Your task to perform on an android device: delete browsing data in the chrome app Image 0: 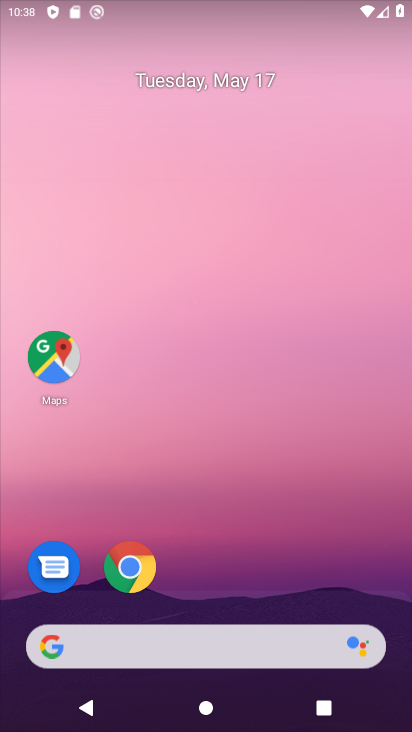
Step 0: drag from (240, 559) to (237, 194)
Your task to perform on an android device: delete browsing data in the chrome app Image 1: 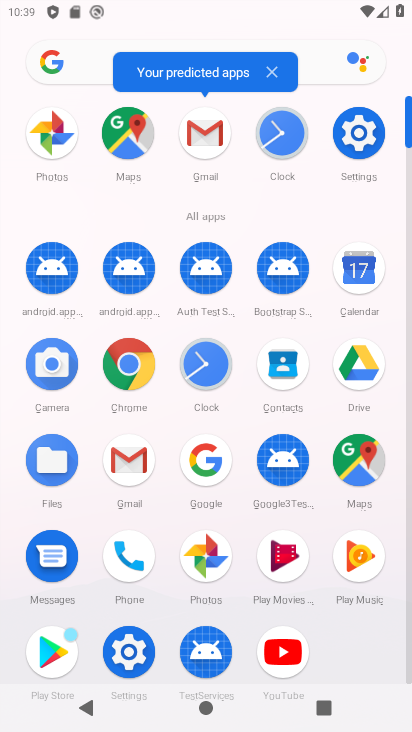
Step 1: click (136, 359)
Your task to perform on an android device: delete browsing data in the chrome app Image 2: 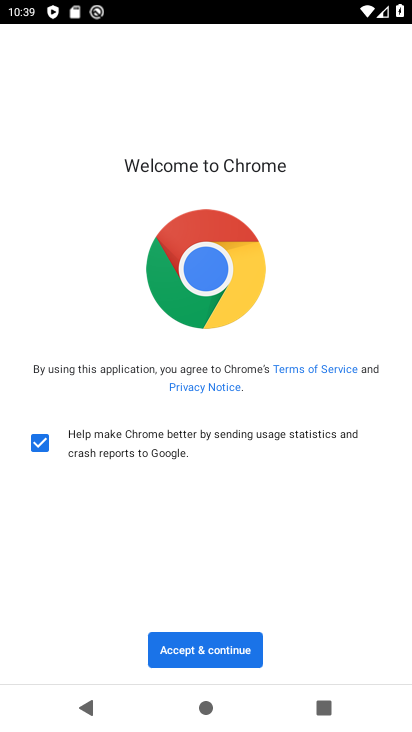
Step 2: click (212, 654)
Your task to perform on an android device: delete browsing data in the chrome app Image 3: 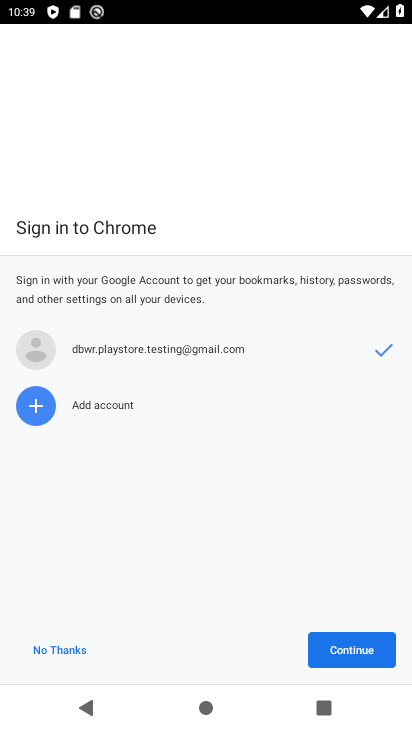
Step 3: click (341, 642)
Your task to perform on an android device: delete browsing data in the chrome app Image 4: 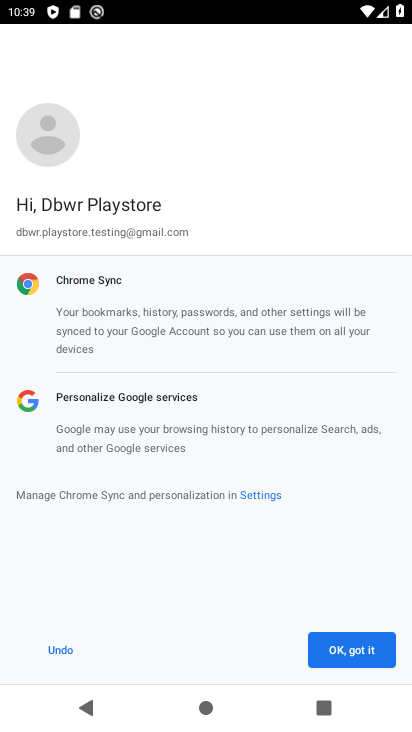
Step 4: click (334, 649)
Your task to perform on an android device: delete browsing data in the chrome app Image 5: 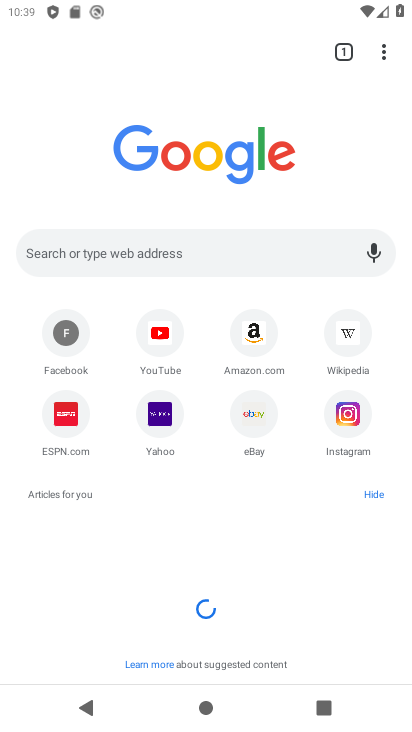
Step 5: click (385, 39)
Your task to perform on an android device: delete browsing data in the chrome app Image 6: 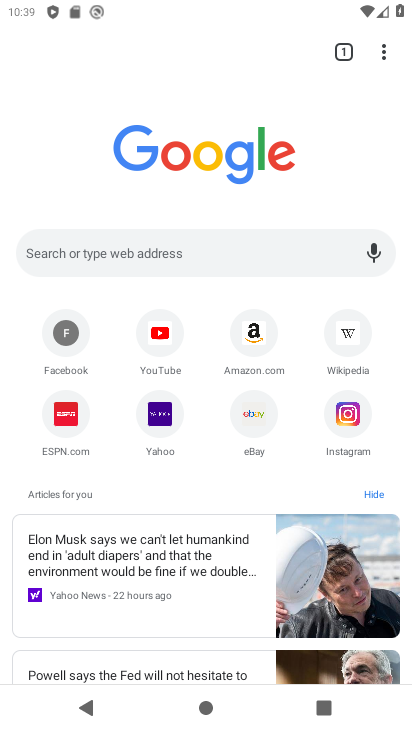
Step 6: click (375, 52)
Your task to perform on an android device: delete browsing data in the chrome app Image 7: 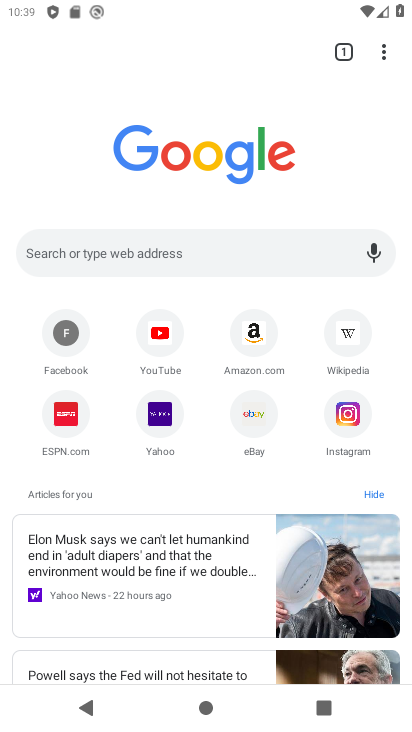
Step 7: click (375, 52)
Your task to perform on an android device: delete browsing data in the chrome app Image 8: 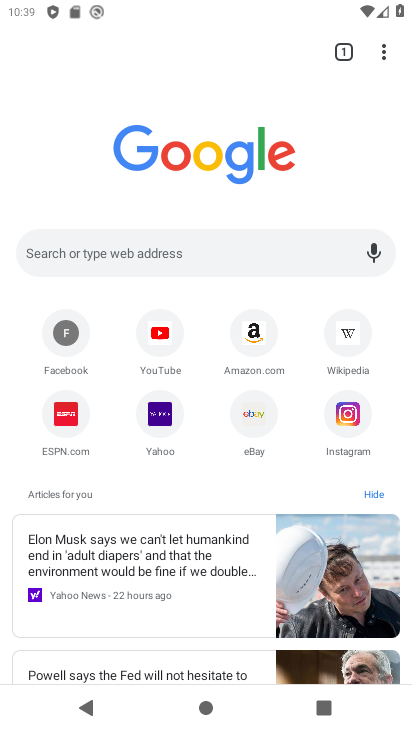
Step 8: click (381, 57)
Your task to perform on an android device: delete browsing data in the chrome app Image 9: 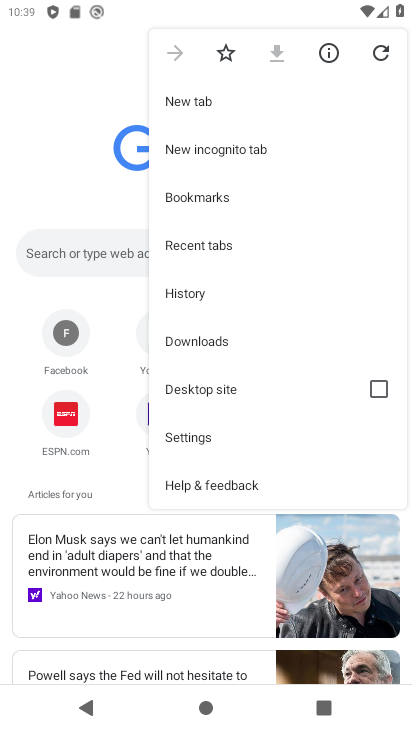
Step 9: click (216, 437)
Your task to perform on an android device: delete browsing data in the chrome app Image 10: 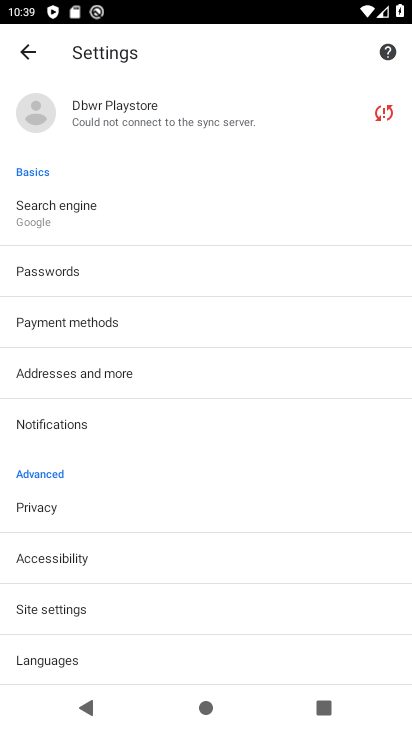
Step 10: drag from (168, 631) to (171, 275)
Your task to perform on an android device: delete browsing data in the chrome app Image 11: 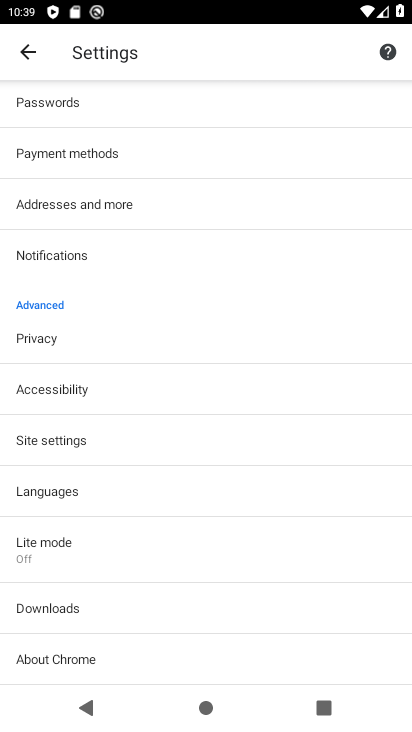
Step 11: drag from (125, 294) to (116, 646)
Your task to perform on an android device: delete browsing data in the chrome app Image 12: 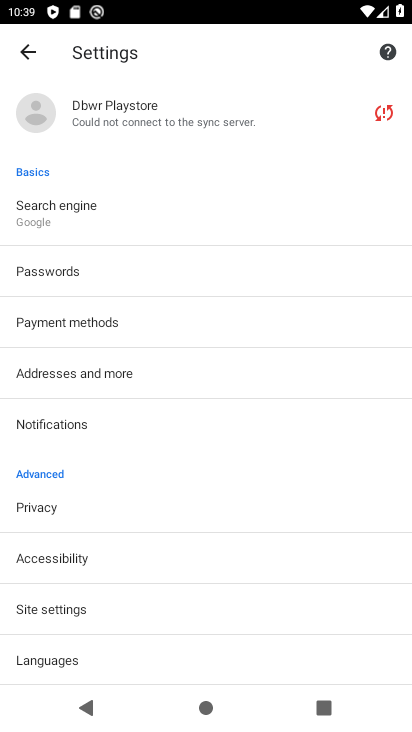
Step 12: drag from (112, 541) to (187, 125)
Your task to perform on an android device: delete browsing data in the chrome app Image 13: 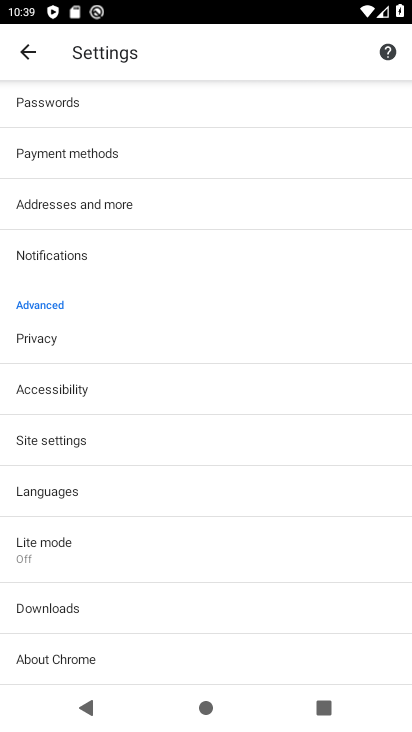
Step 13: drag from (125, 639) to (195, 233)
Your task to perform on an android device: delete browsing data in the chrome app Image 14: 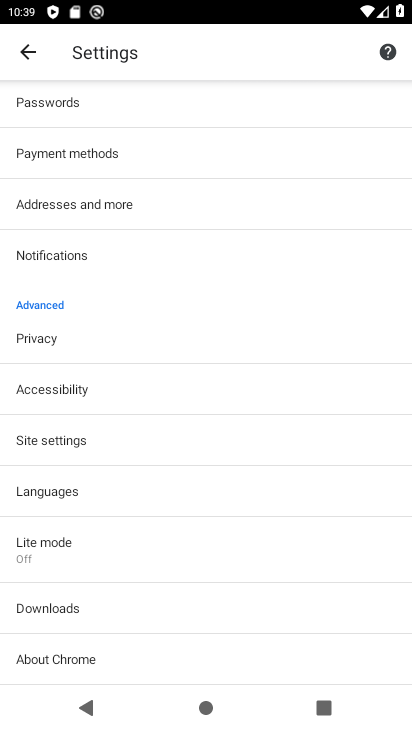
Step 14: click (32, 49)
Your task to perform on an android device: delete browsing data in the chrome app Image 15: 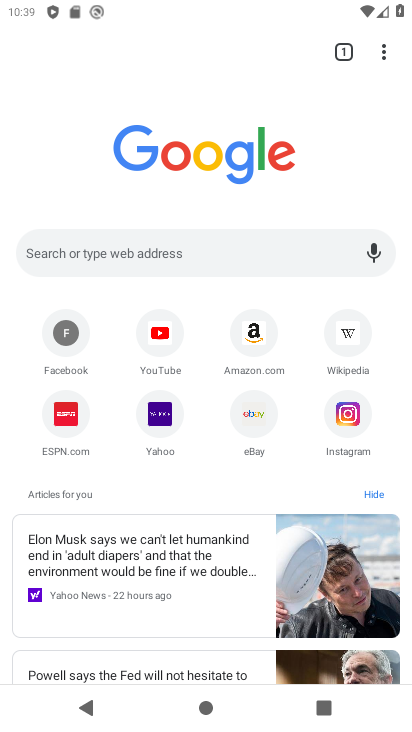
Step 15: click (386, 58)
Your task to perform on an android device: delete browsing data in the chrome app Image 16: 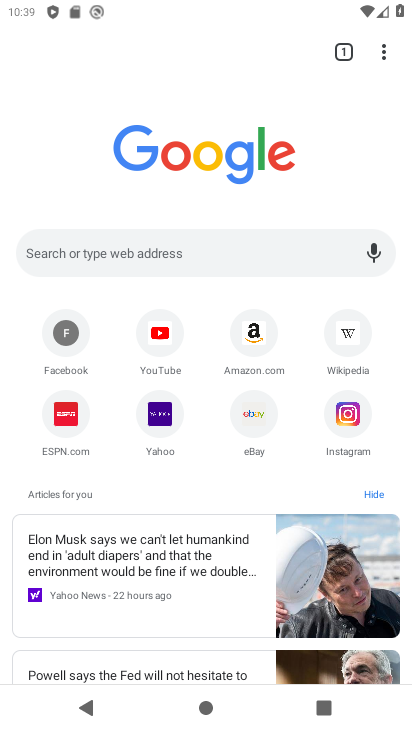
Step 16: click (376, 45)
Your task to perform on an android device: delete browsing data in the chrome app Image 17: 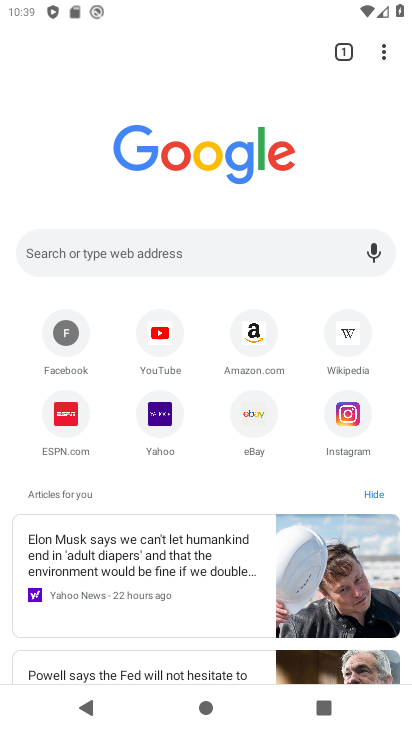
Step 17: click (376, 45)
Your task to perform on an android device: delete browsing data in the chrome app Image 18: 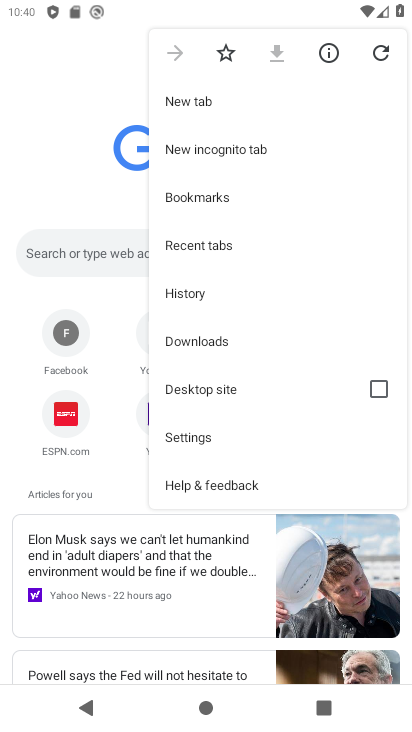
Step 18: click (228, 435)
Your task to perform on an android device: delete browsing data in the chrome app Image 19: 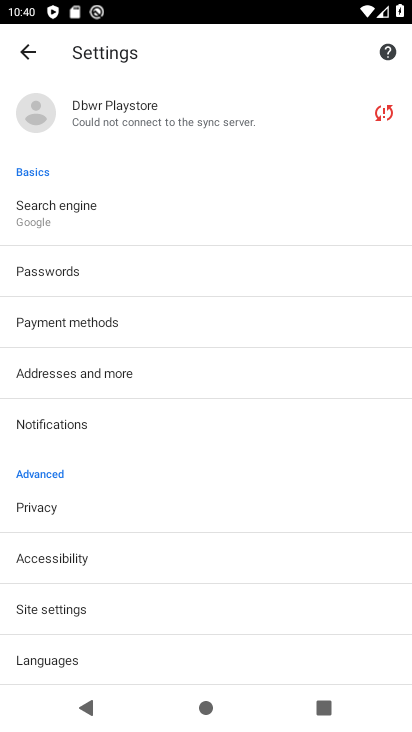
Step 19: click (74, 506)
Your task to perform on an android device: delete browsing data in the chrome app Image 20: 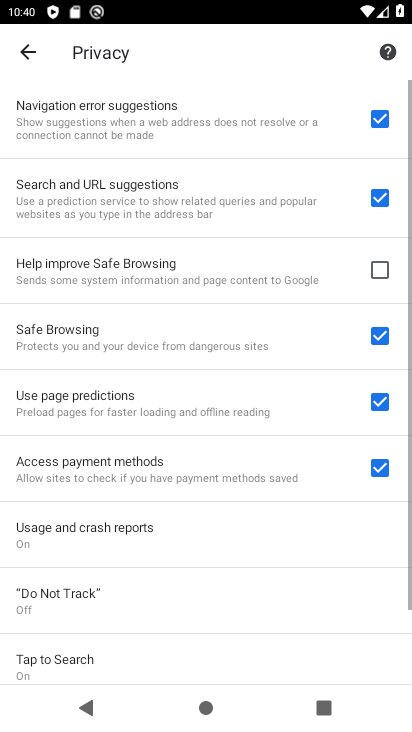
Step 20: drag from (190, 661) to (265, 74)
Your task to perform on an android device: delete browsing data in the chrome app Image 21: 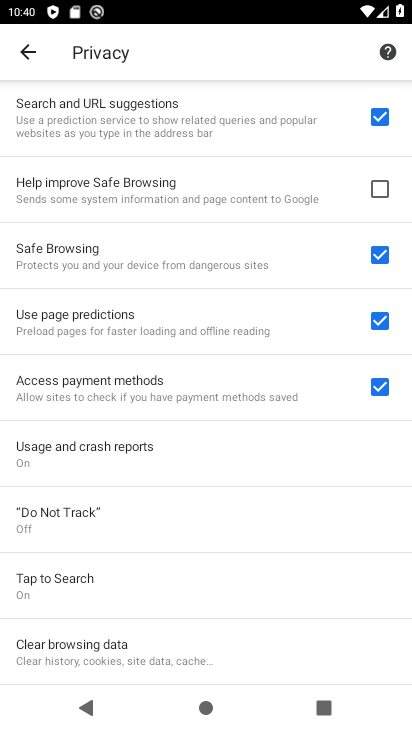
Step 21: click (200, 668)
Your task to perform on an android device: delete browsing data in the chrome app Image 22: 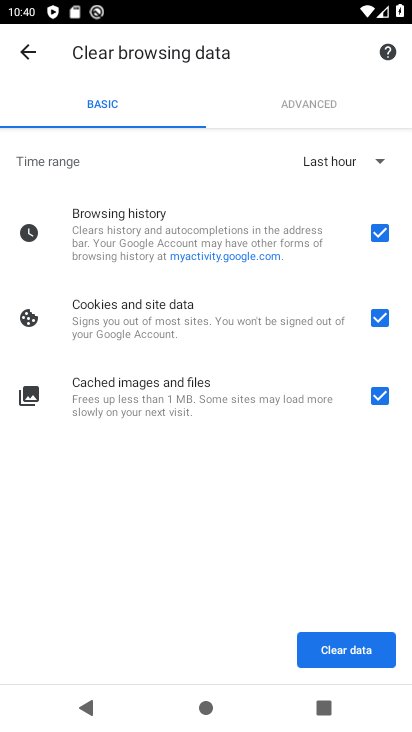
Step 22: click (320, 645)
Your task to perform on an android device: delete browsing data in the chrome app Image 23: 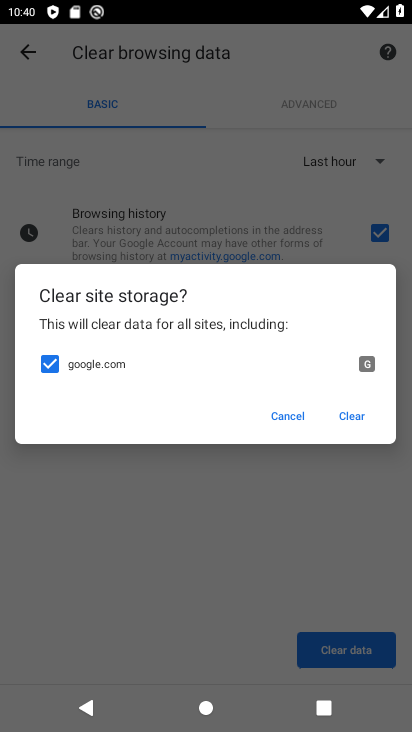
Step 23: click (353, 412)
Your task to perform on an android device: delete browsing data in the chrome app Image 24: 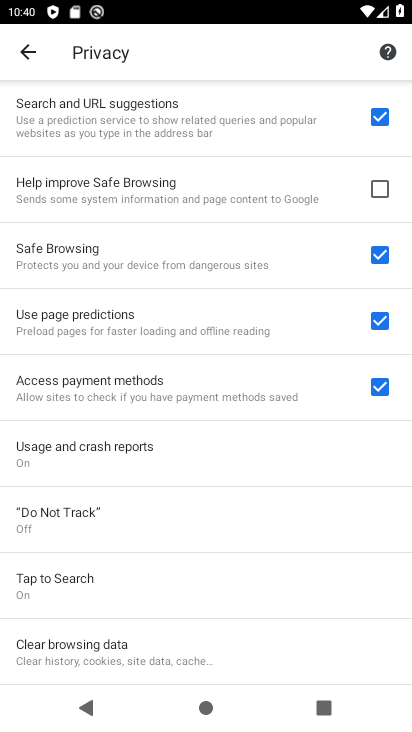
Step 24: task complete